Your task to perform on an android device: What is the recent news? Image 0: 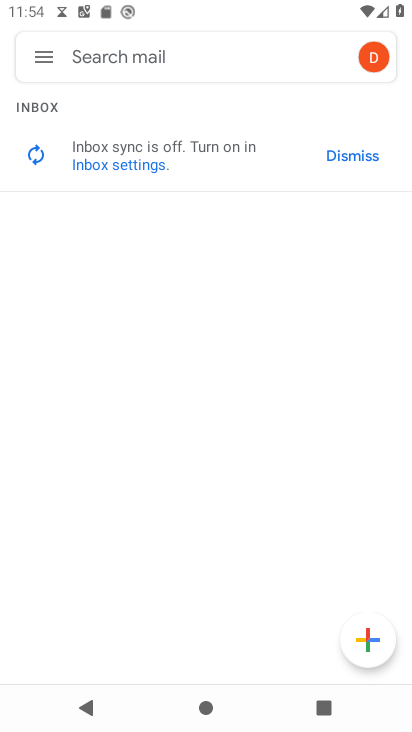
Step 0: press home button
Your task to perform on an android device: What is the recent news? Image 1: 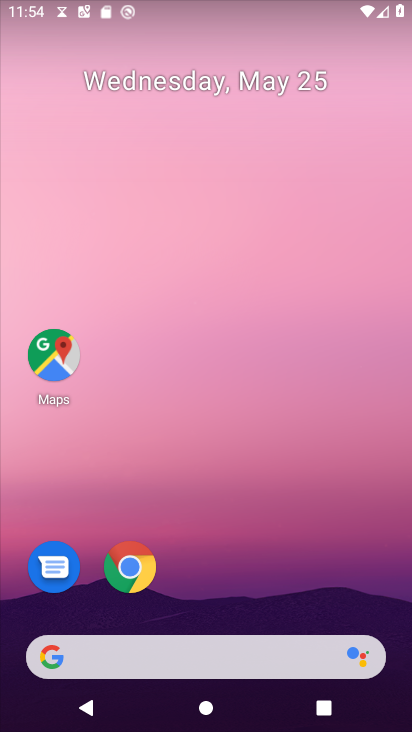
Step 1: drag from (277, 545) to (209, 125)
Your task to perform on an android device: What is the recent news? Image 2: 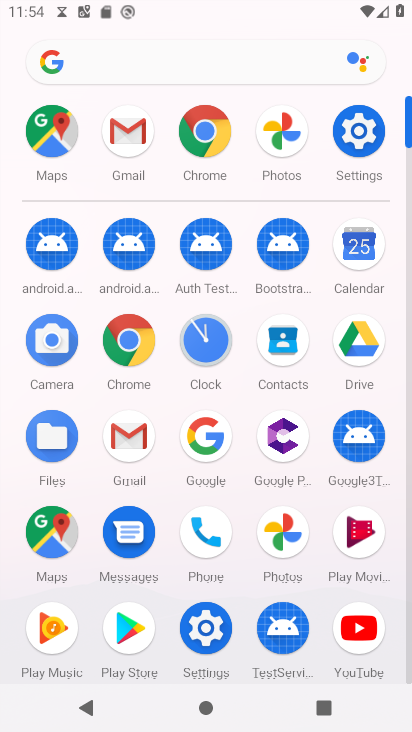
Step 2: click (216, 432)
Your task to perform on an android device: What is the recent news? Image 3: 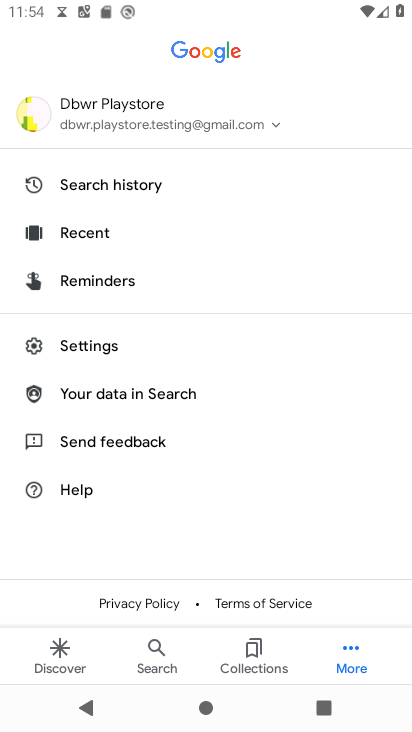
Step 3: click (39, 656)
Your task to perform on an android device: What is the recent news? Image 4: 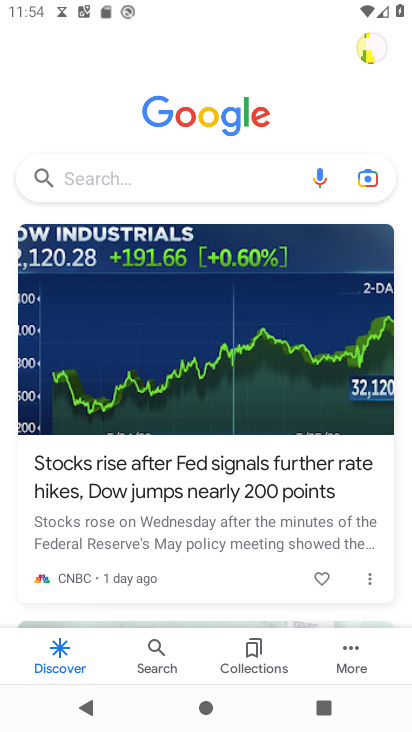
Step 4: click (138, 184)
Your task to perform on an android device: What is the recent news? Image 5: 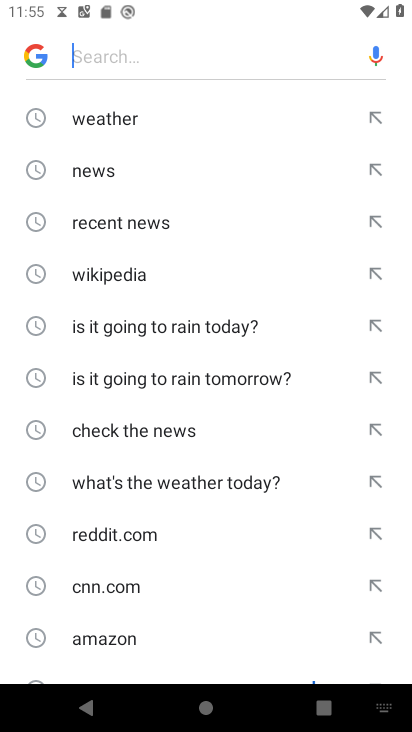
Step 5: click (95, 228)
Your task to perform on an android device: What is the recent news? Image 6: 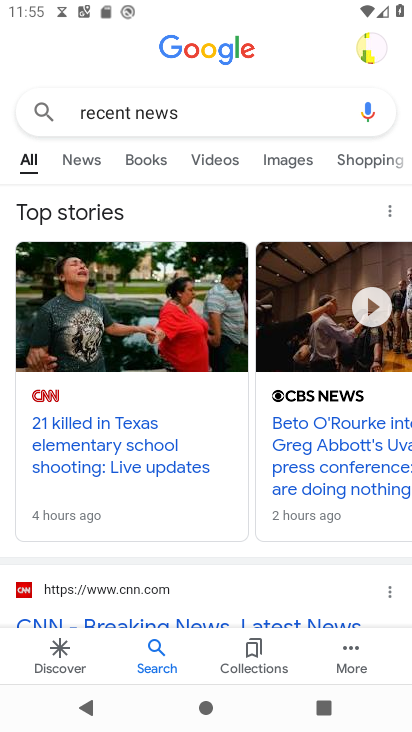
Step 6: task complete